Your task to perform on an android device: Go to Amazon Image 0: 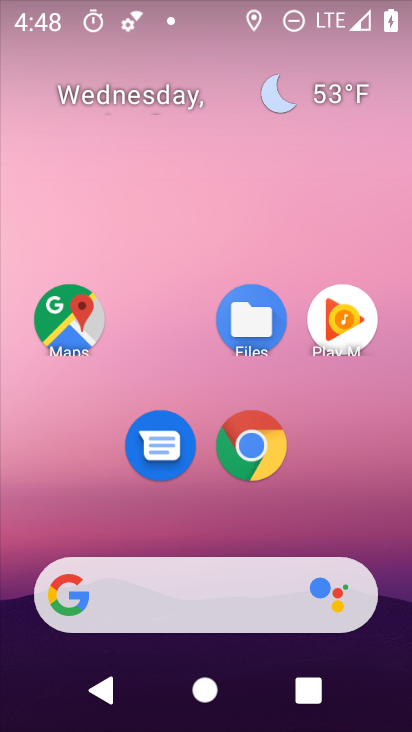
Step 0: click (253, 448)
Your task to perform on an android device: Go to Amazon Image 1: 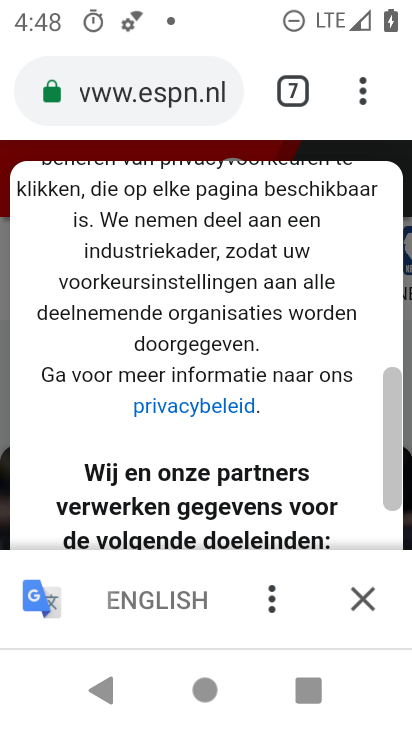
Step 1: click (284, 88)
Your task to perform on an android device: Go to Amazon Image 2: 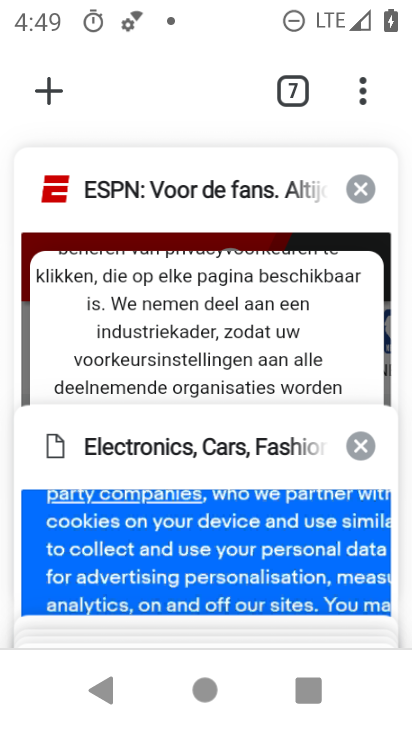
Step 2: click (57, 84)
Your task to perform on an android device: Go to Amazon Image 3: 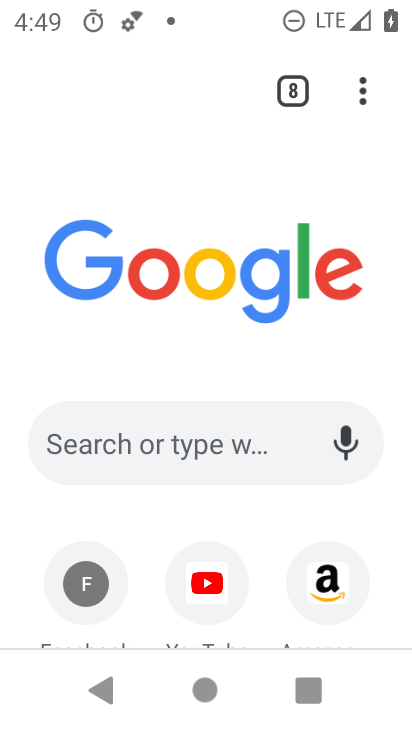
Step 3: click (322, 570)
Your task to perform on an android device: Go to Amazon Image 4: 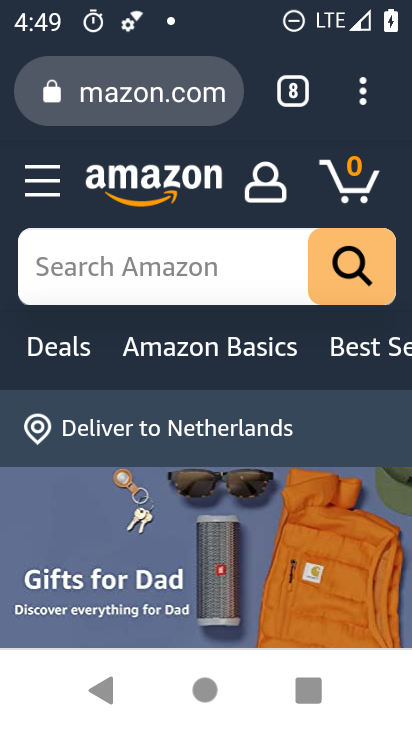
Step 4: task complete